Your task to perform on an android device: Go to Amazon Image 0: 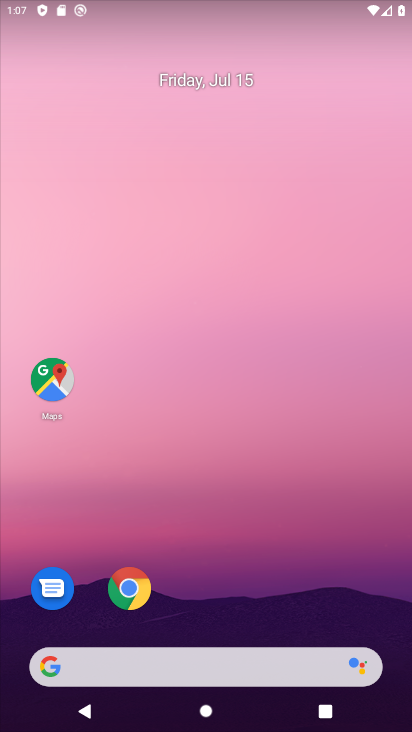
Step 0: click (128, 594)
Your task to perform on an android device: Go to Amazon Image 1: 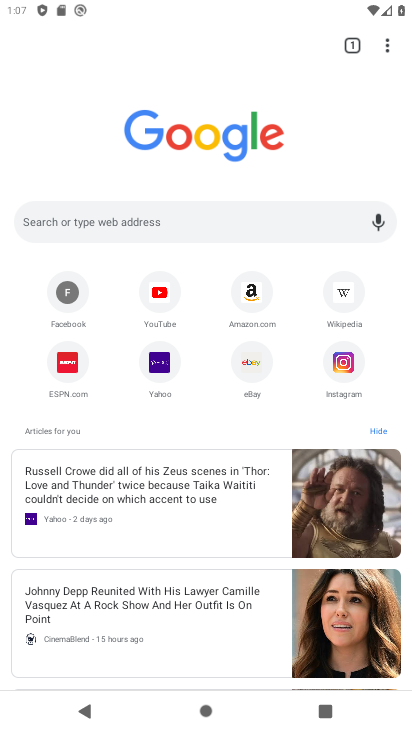
Step 1: click (243, 308)
Your task to perform on an android device: Go to Amazon Image 2: 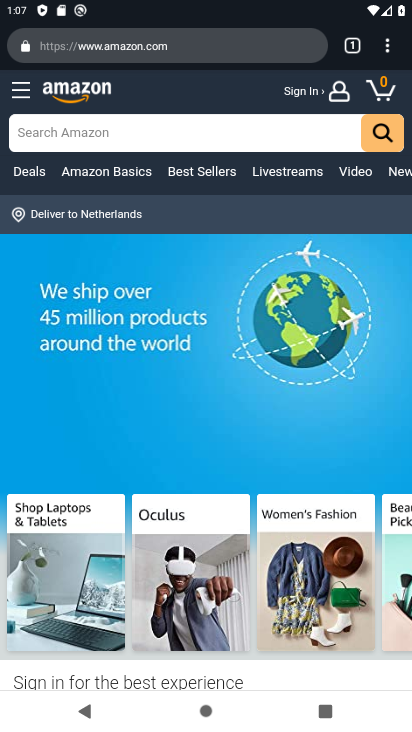
Step 2: task complete